Your task to perform on an android device: toggle data saver in the chrome app Image 0: 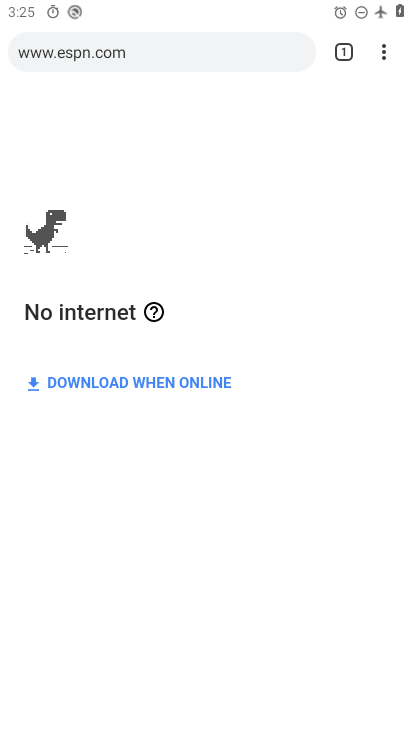
Step 0: click (382, 51)
Your task to perform on an android device: toggle data saver in the chrome app Image 1: 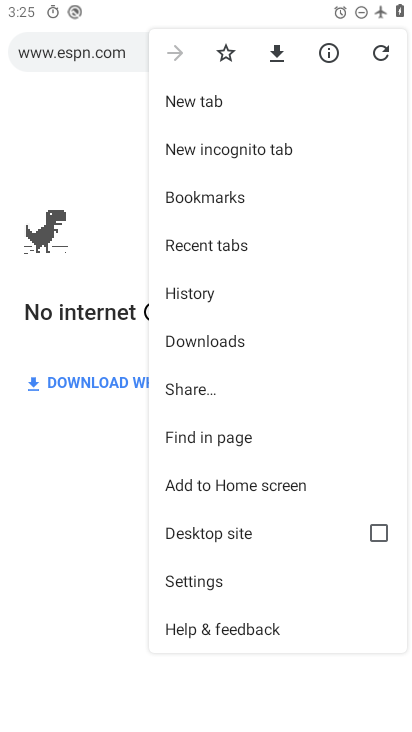
Step 1: click (181, 577)
Your task to perform on an android device: toggle data saver in the chrome app Image 2: 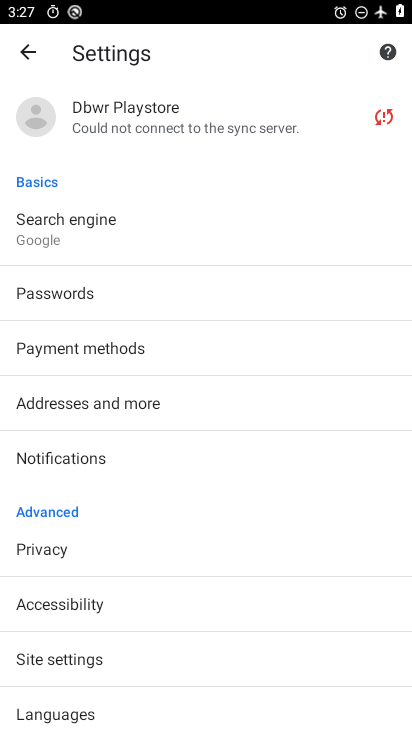
Step 2: drag from (35, 724) to (103, 473)
Your task to perform on an android device: toggle data saver in the chrome app Image 3: 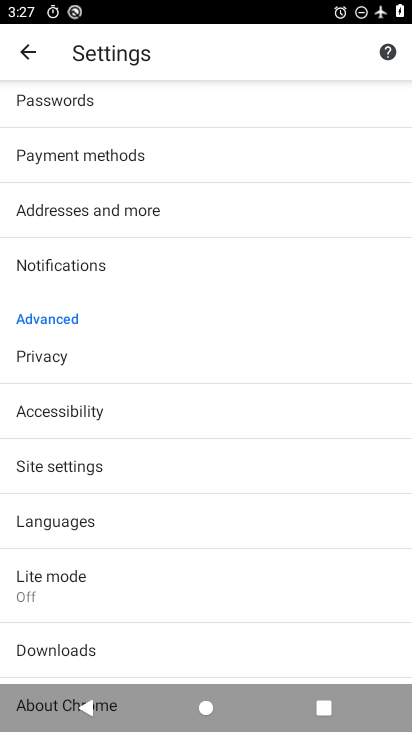
Step 3: click (45, 597)
Your task to perform on an android device: toggle data saver in the chrome app Image 4: 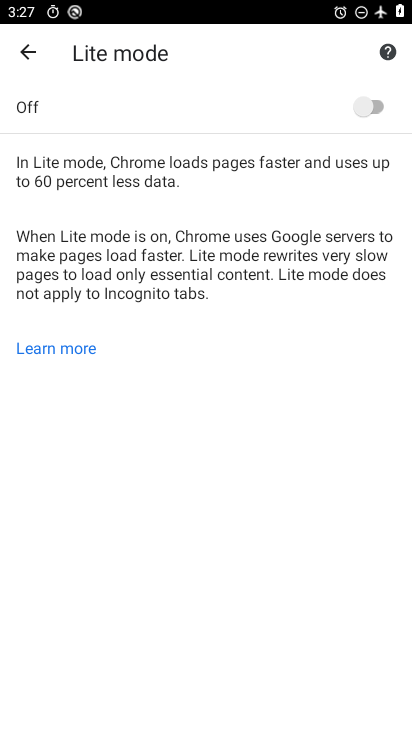
Step 4: click (389, 95)
Your task to perform on an android device: toggle data saver in the chrome app Image 5: 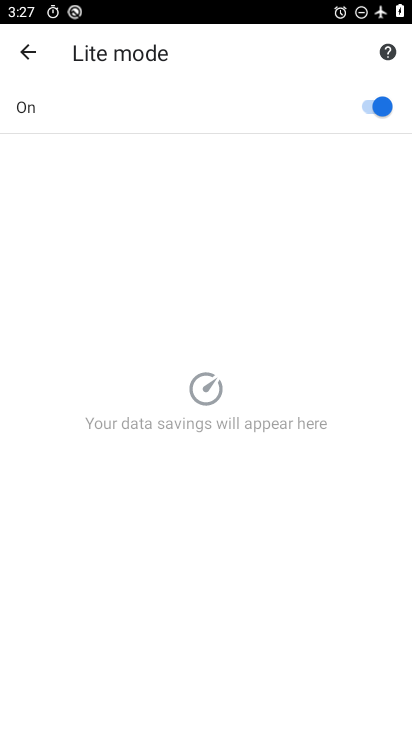
Step 5: task complete